Your task to perform on an android device: search for starred emails in the gmail app Image 0: 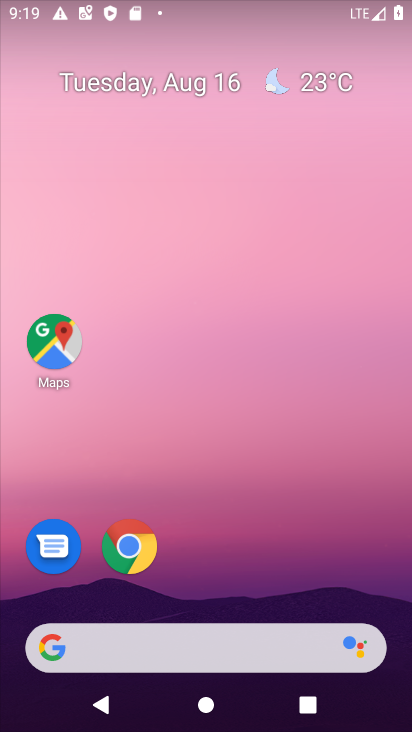
Step 0: drag from (253, 276) to (260, 5)
Your task to perform on an android device: search for starred emails in the gmail app Image 1: 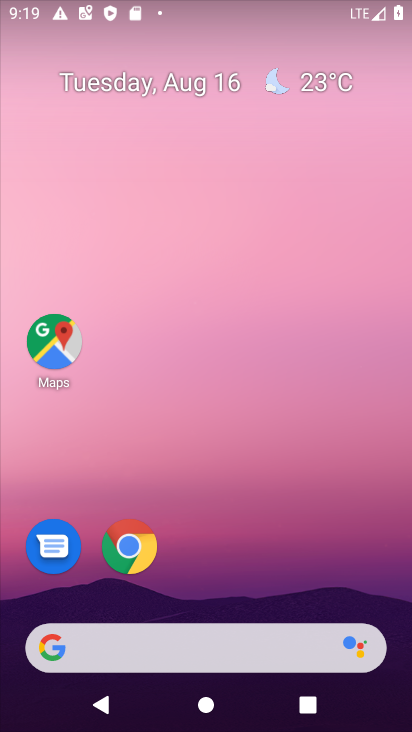
Step 1: drag from (216, 558) to (246, 0)
Your task to perform on an android device: search for starred emails in the gmail app Image 2: 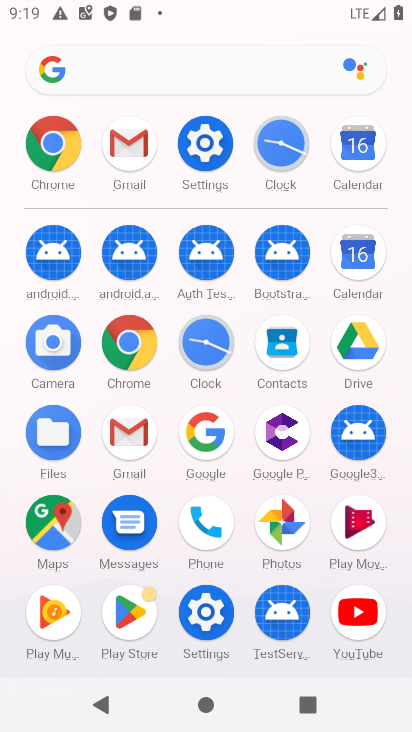
Step 2: click (133, 143)
Your task to perform on an android device: search for starred emails in the gmail app Image 3: 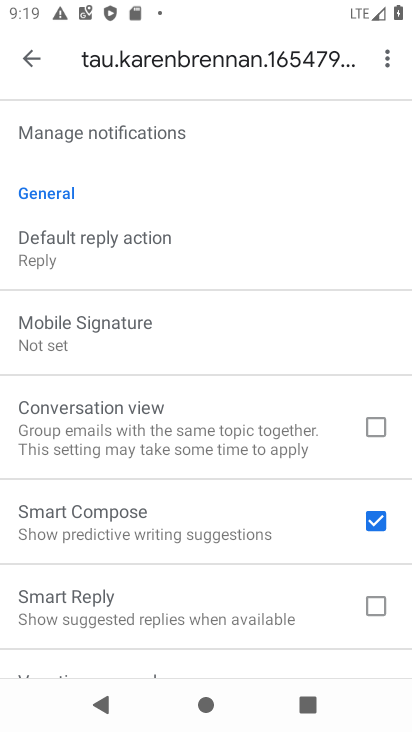
Step 3: click (34, 59)
Your task to perform on an android device: search for starred emails in the gmail app Image 4: 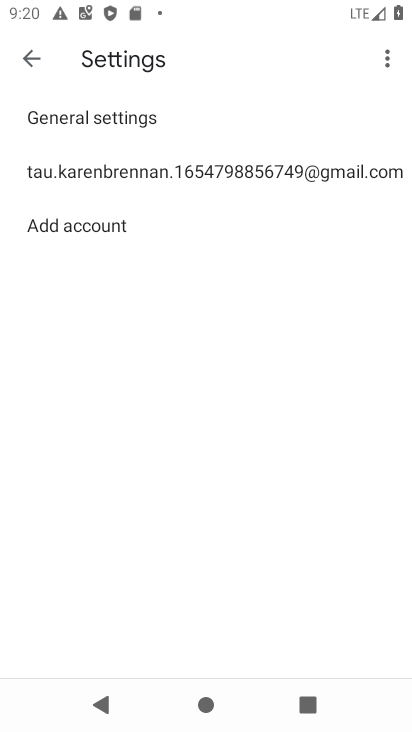
Step 4: click (27, 55)
Your task to perform on an android device: search for starred emails in the gmail app Image 5: 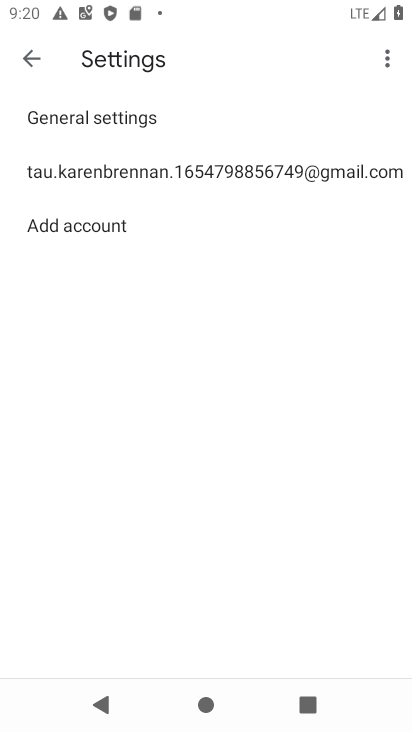
Step 5: click (27, 55)
Your task to perform on an android device: search for starred emails in the gmail app Image 6: 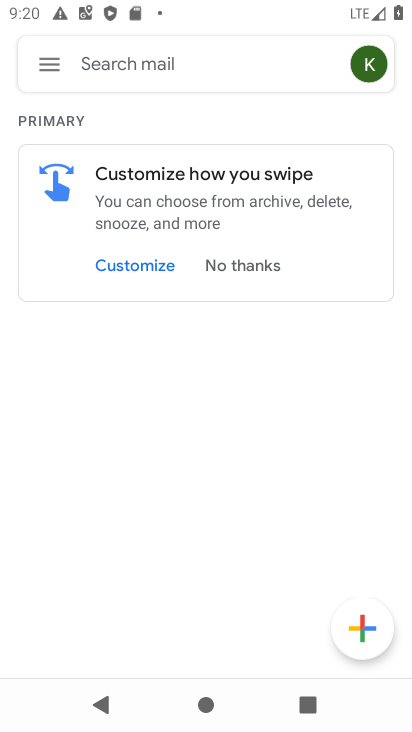
Step 6: click (48, 68)
Your task to perform on an android device: search for starred emails in the gmail app Image 7: 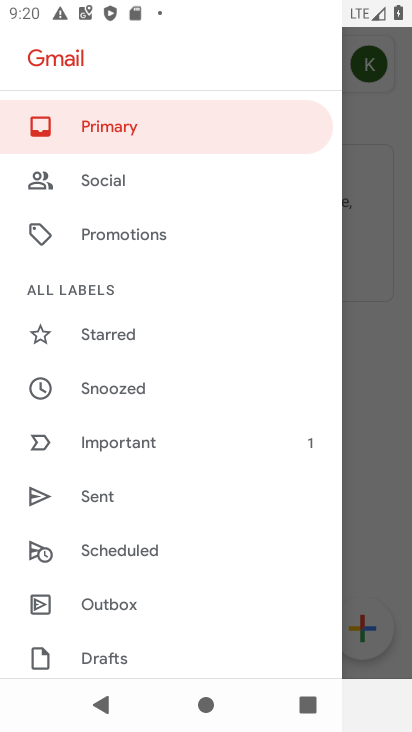
Step 7: click (125, 334)
Your task to perform on an android device: search for starred emails in the gmail app Image 8: 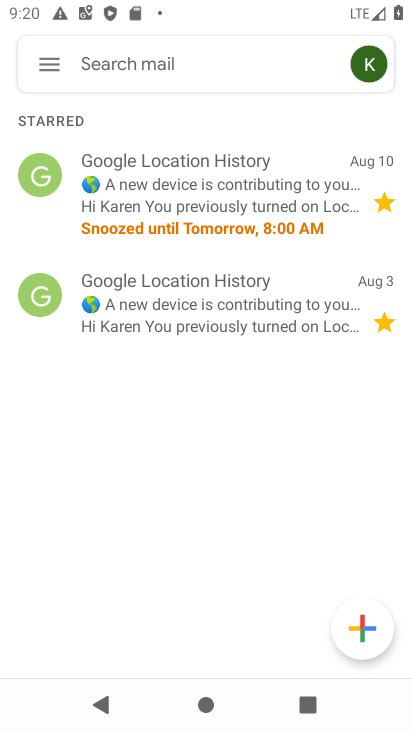
Step 8: task complete